Your task to perform on an android device: Open the map Image 0: 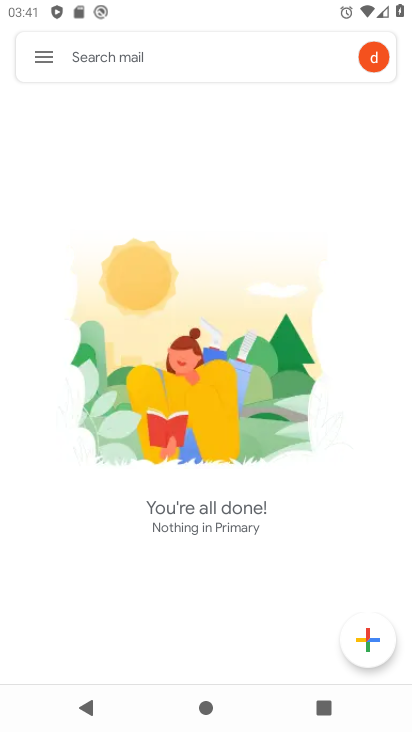
Step 0: press home button
Your task to perform on an android device: Open the map Image 1: 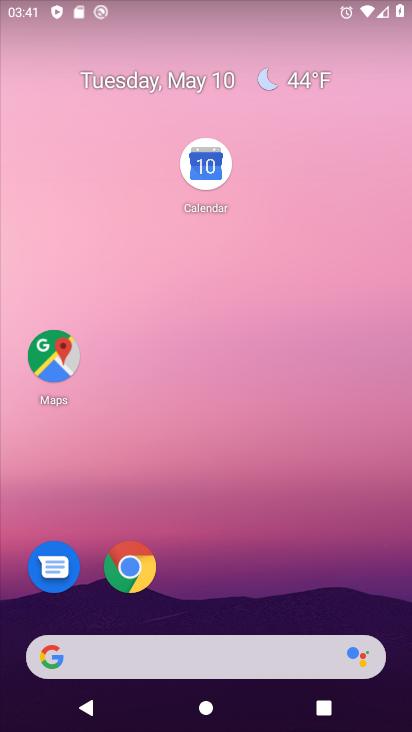
Step 1: click (55, 363)
Your task to perform on an android device: Open the map Image 2: 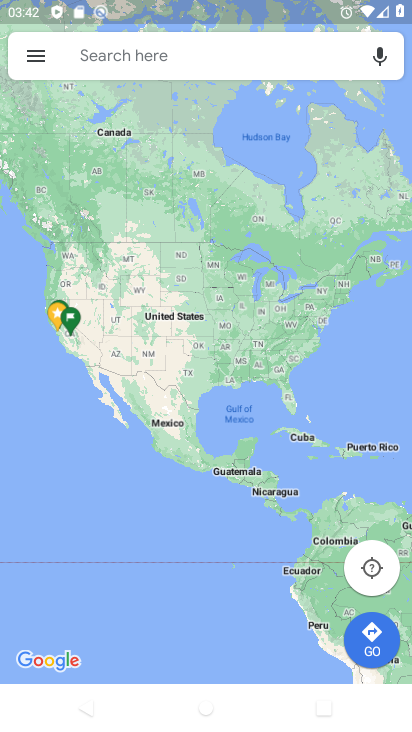
Step 2: task complete